Your task to perform on an android device: Go to ESPN.com Image 0: 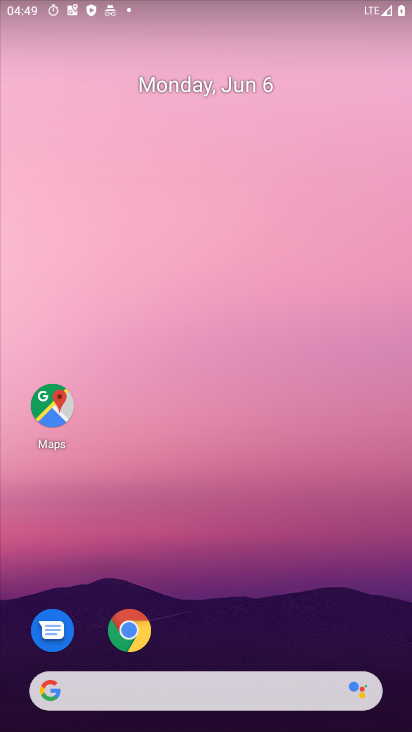
Step 0: drag from (186, 641) to (233, 97)
Your task to perform on an android device: Go to ESPN.com Image 1: 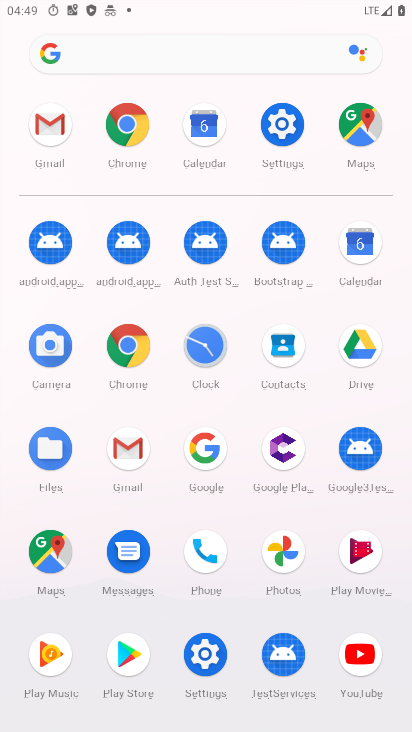
Step 1: click (126, 337)
Your task to perform on an android device: Go to ESPN.com Image 2: 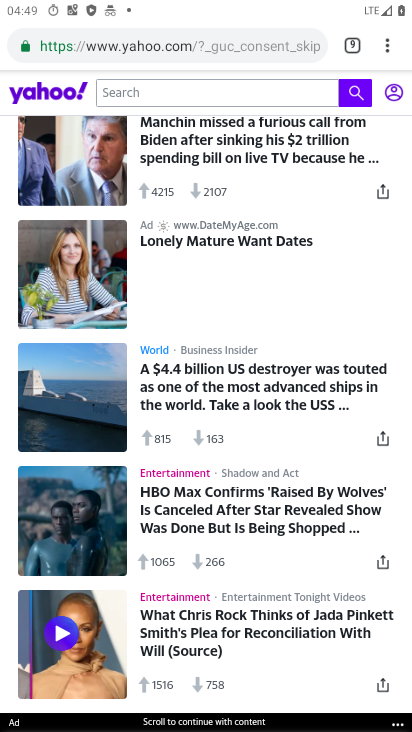
Step 2: click (229, 37)
Your task to perform on an android device: Go to ESPN.com Image 3: 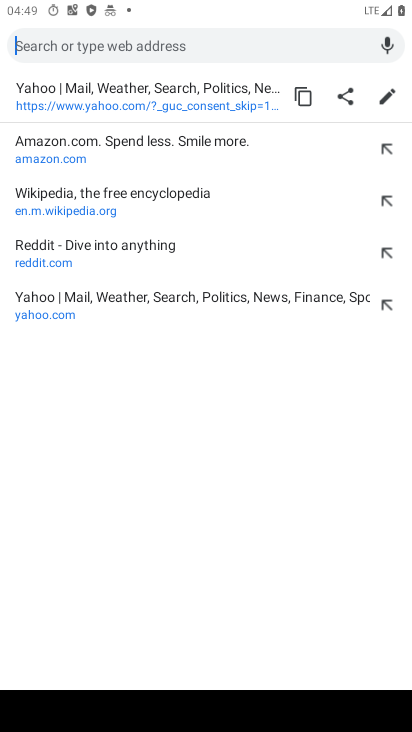
Step 3: type " ESPN.com"
Your task to perform on an android device: Go to ESPN.com Image 4: 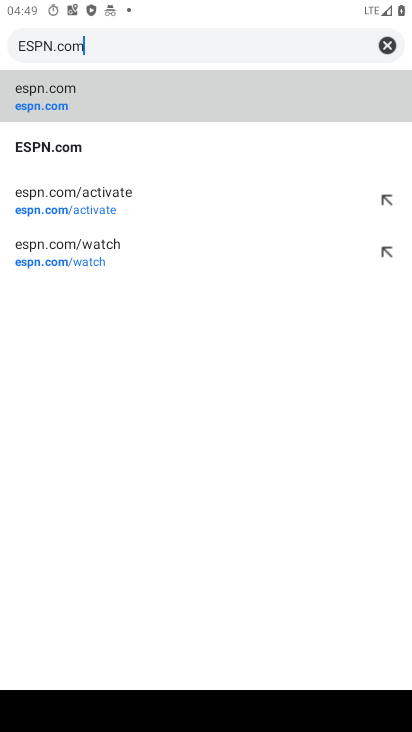
Step 4: click (60, 102)
Your task to perform on an android device: Go to ESPN.com Image 5: 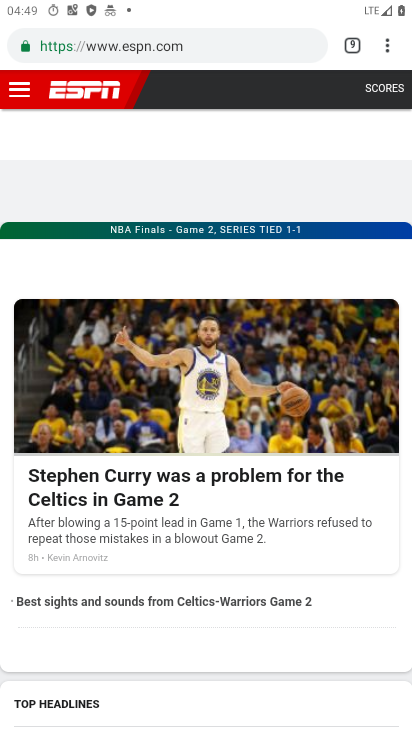
Step 5: task complete